Your task to perform on an android device: create a new album in the google photos Image 0: 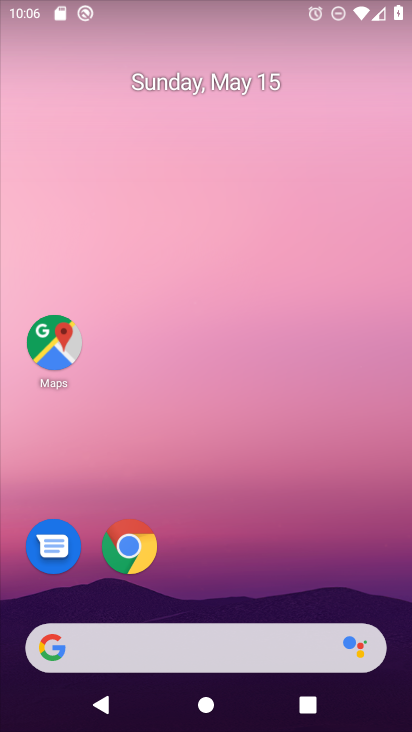
Step 0: drag from (248, 511) to (140, 19)
Your task to perform on an android device: create a new album in the google photos Image 1: 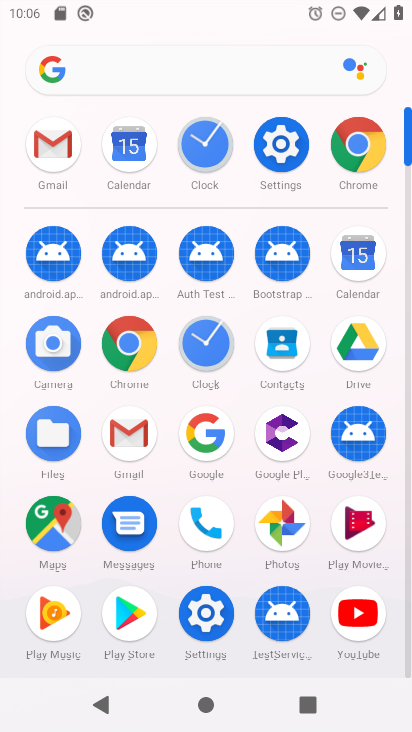
Step 1: click (274, 536)
Your task to perform on an android device: create a new album in the google photos Image 2: 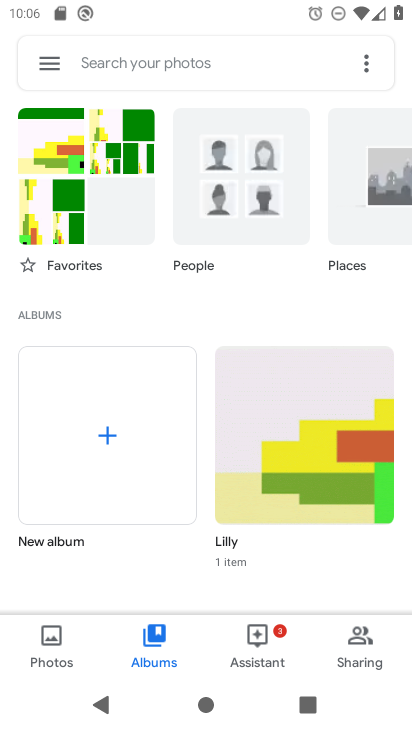
Step 2: click (88, 473)
Your task to perform on an android device: create a new album in the google photos Image 3: 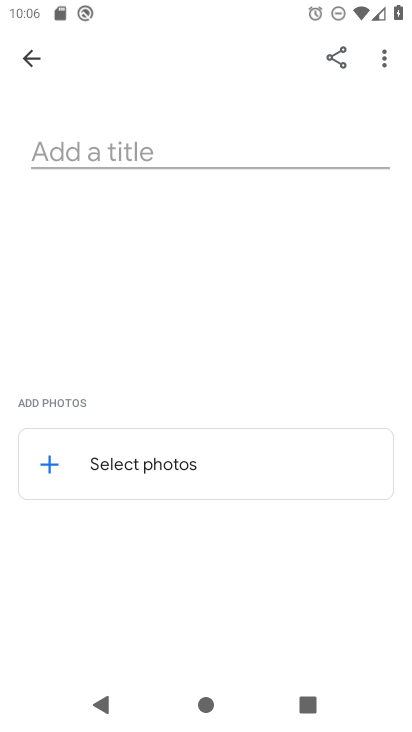
Step 3: click (143, 471)
Your task to perform on an android device: create a new album in the google photos Image 4: 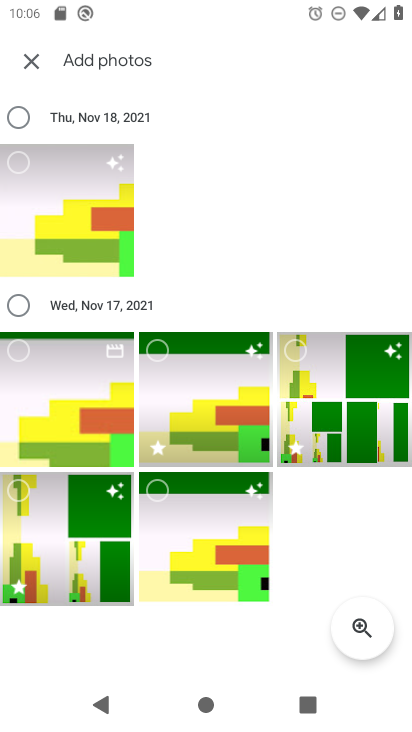
Step 4: click (70, 211)
Your task to perform on an android device: create a new album in the google photos Image 5: 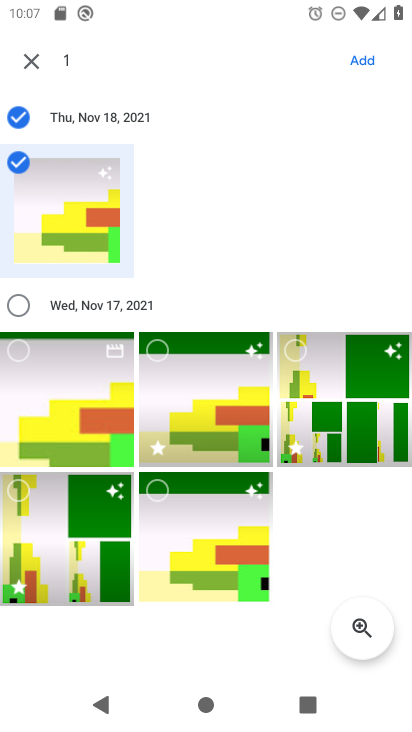
Step 5: click (371, 52)
Your task to perform on an android device: create a new album in the google photos Image 6: 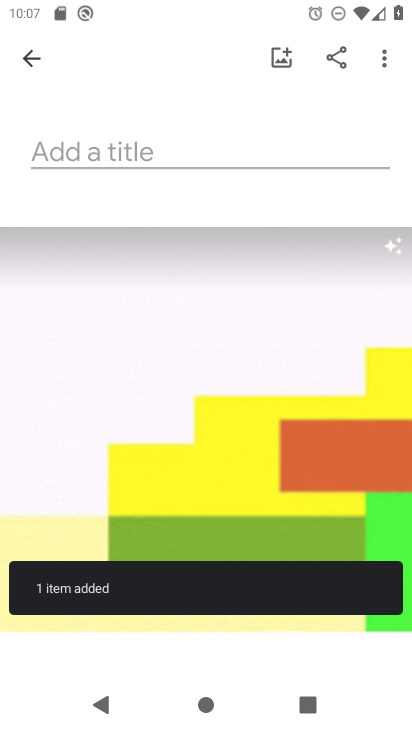
Step 6: click (246, 159)
Your task to perform on an android device: create a new album in the google photos Image 7: 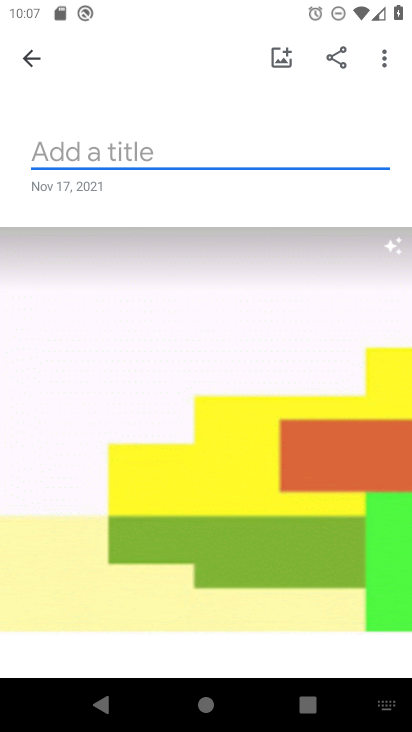
Step 7: type "idea"
Your task to perform on an android device: create a new album in the google photos Image 8: 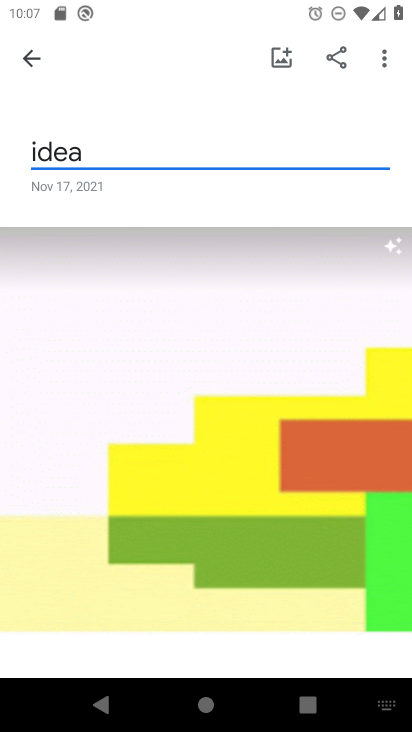
Step 8: click (276, 191)
Your task to perform on an android device: create a new album in the google photos Image 9: 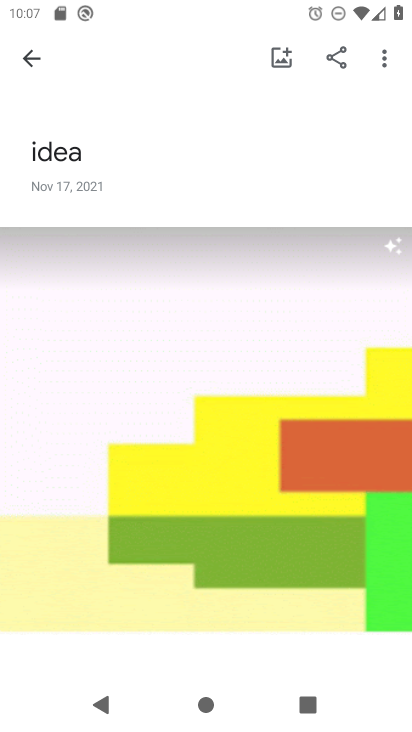
Step 9: task complete